Your task to perform on an android device: see tabs open on other devices in the chrome app Image 0: 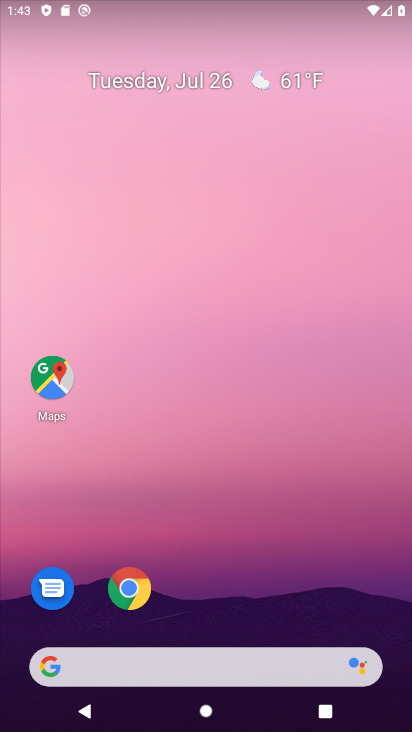
Step 0: drag from (169, 605) to (152, 6)
Your task to perform on an android device: see tabs open on other devices in the chrome app Image 1: 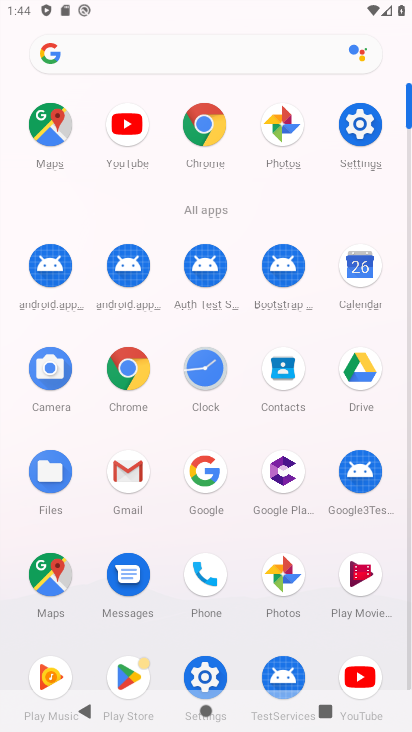
Step 1: click (204, 122)
Your task to perform on an android device: see tabs open on other devices in the chrome app Image 2: 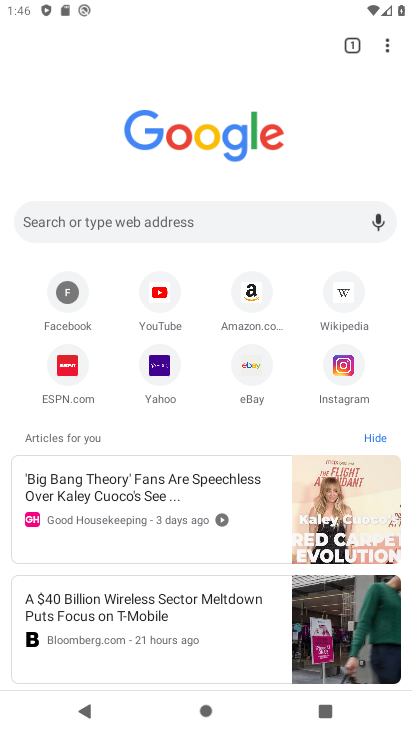
Step 2: drag from (392, 45) to (236, 219)
Your task to perform on an android device: see tabs open on other devices in the chrome app Image 3: 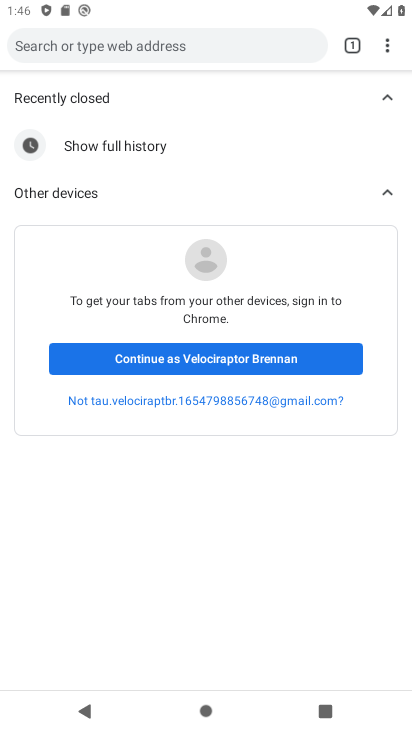
Step 3: click (231, 364)
Your task to perform on an android device: see tabs open on other devices in the chrome app Image 4: 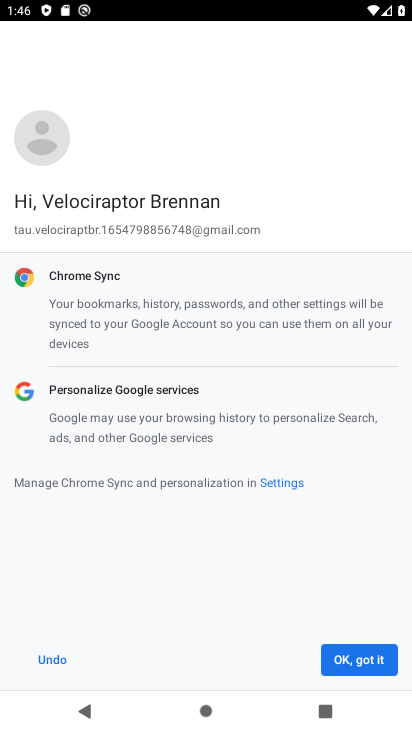
Step 4: click (355, 669)
Your task to perform on an android device: see tabs open on other devices in the chrome app Image 5: 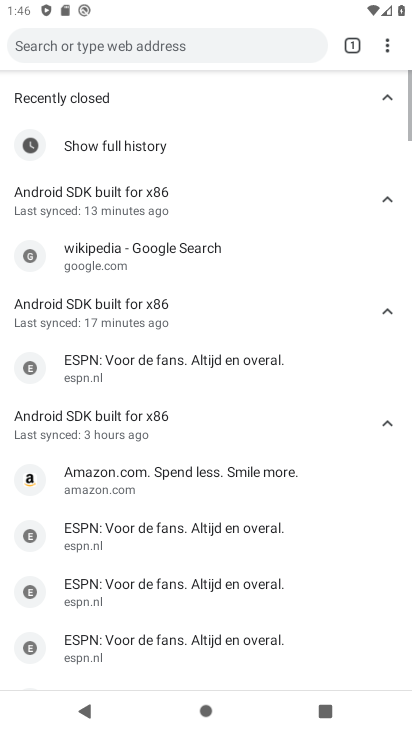
Step 5: task complete